Your task to perform on an android device: Toggle the flashlight Image 0: 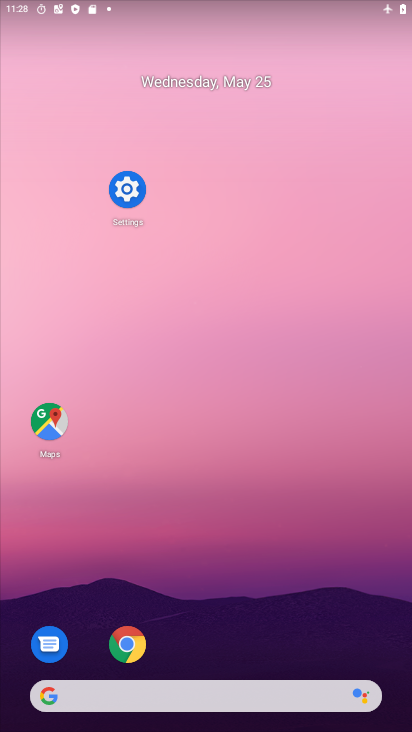
Step 0: drag from (224, 499) to (199, 115)
Your task to perform on an android device: Toggle the flashlight Image 1: 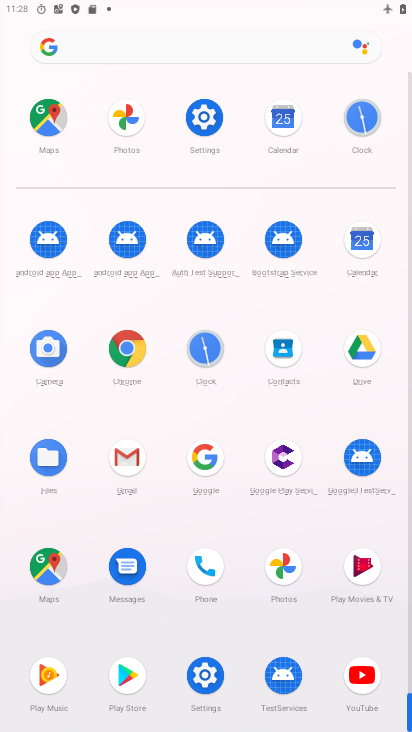
Step 1: click (202, 110)
Your task to perform on an android device: Toggle the flashlight Image 2: 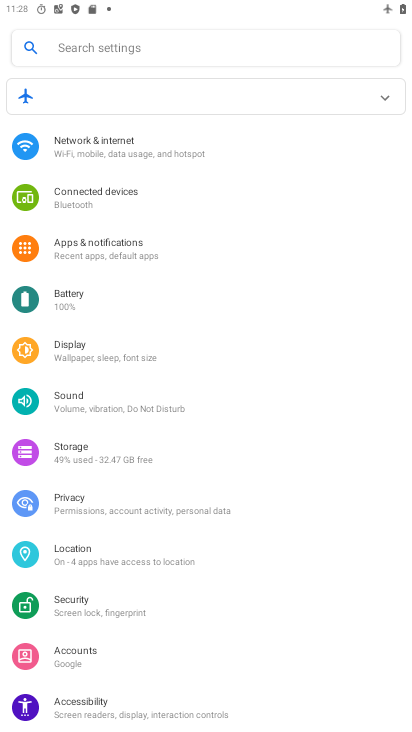
Step 2: click (152, 49)
Your task to perform on an android device: Toggle the flashlight Image 3: 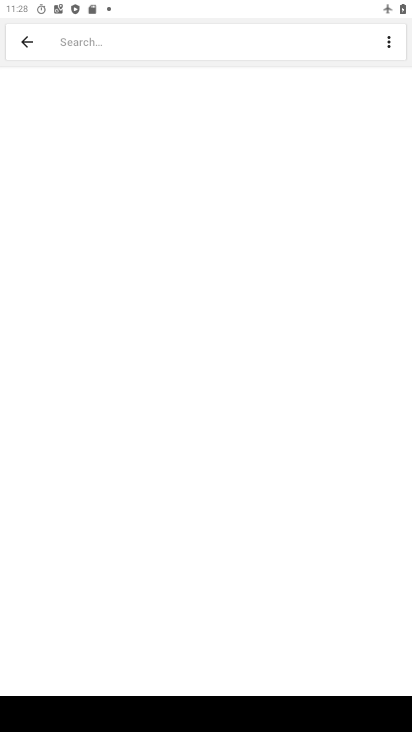
Step 3: type "flash"
Your task to perform on an android device: Toggle the flashlight Image 4: 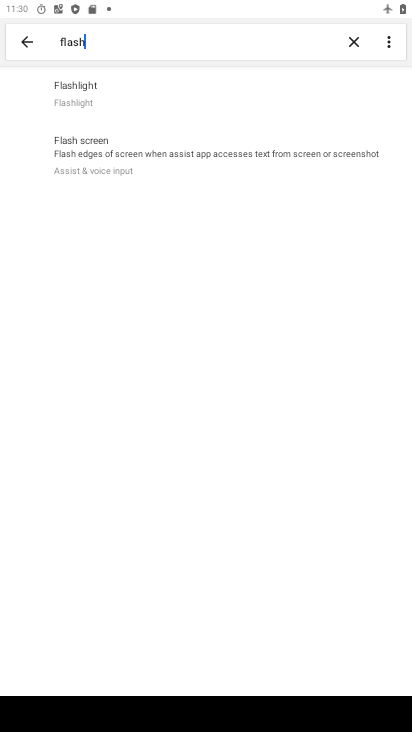
Step 4: task complete